Your task to perform on an android device: Check the news Image 0: 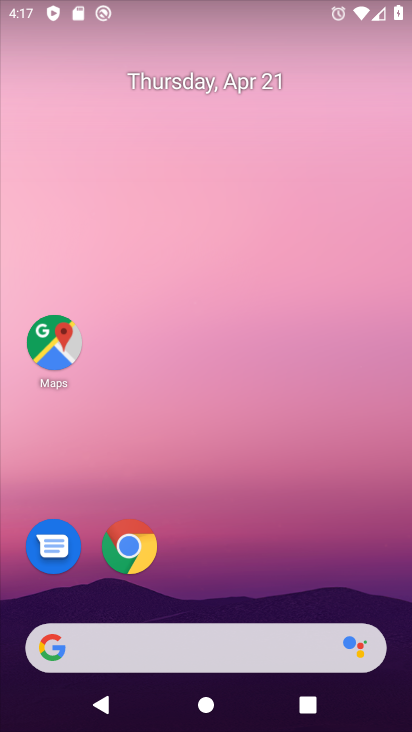
Step 0: drag from (266, 610) to (266, 80)
Your task to perform on an android device: Check the news Image 1: 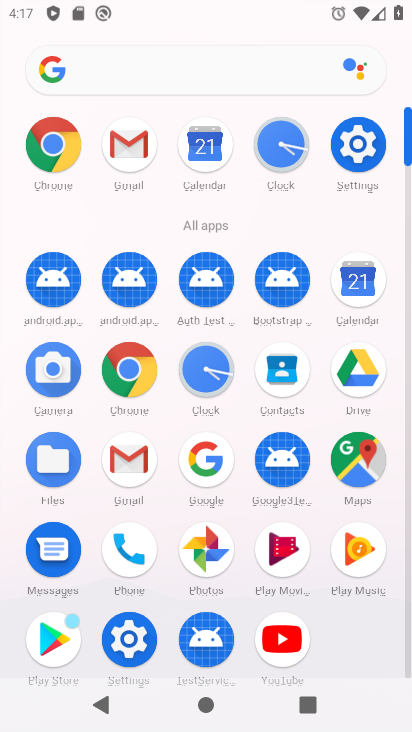
Step 1: click (134, 379)
Your task to perform on an android device: Check the news Image 2: 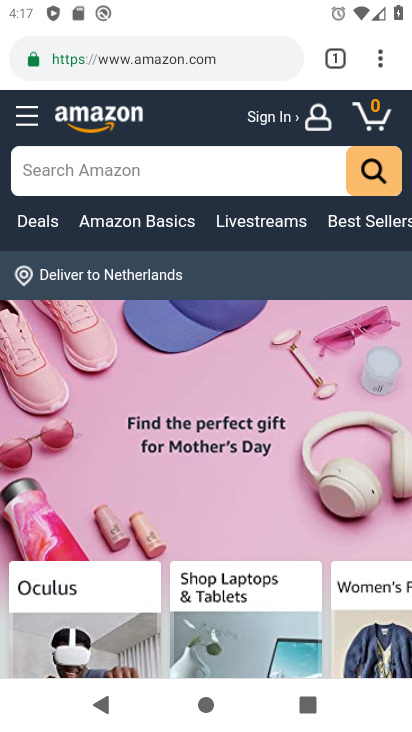
Step 2: click (225, 70)
Your task to perform on an android device: Check the news Image 3: 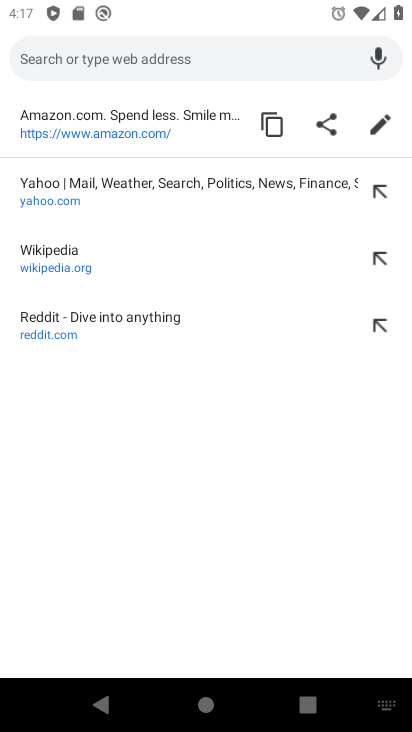
Step 3: type "news"
Your task to perform on an android device: Check the news Image 4: 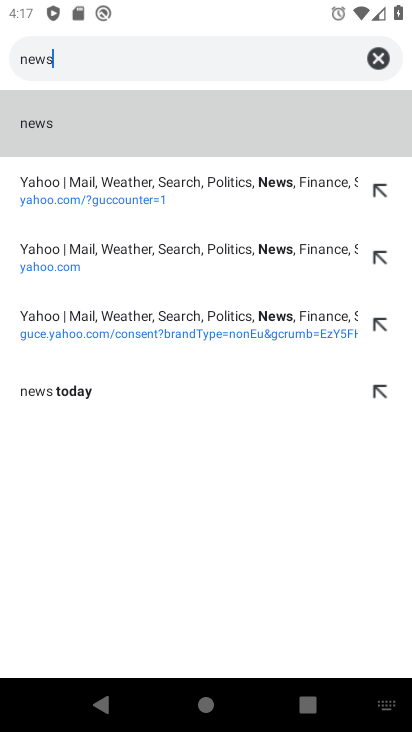
Step 4: press enter
Your task to perform on an android device: Check the news Image 5: 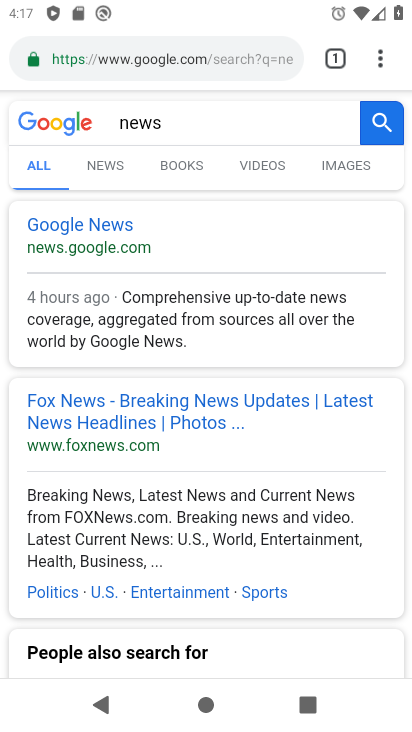
Step 5: click (118, 166)
Your task to perform on an android device: Check the news Image 6: 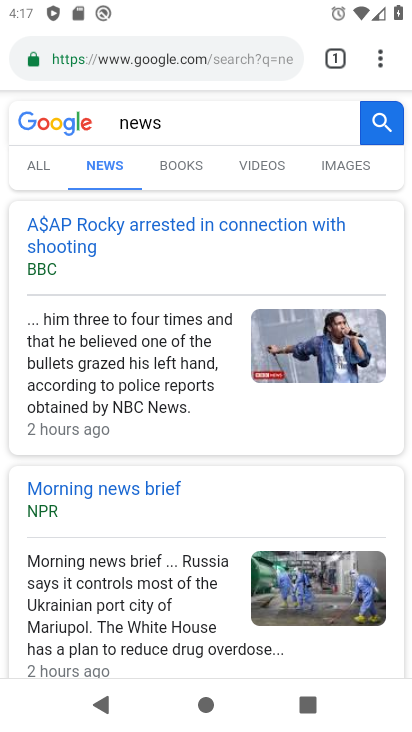
Step 6: task complete